Your task to perform on an android device: Open the calendar and show me this week's events? Image 0: 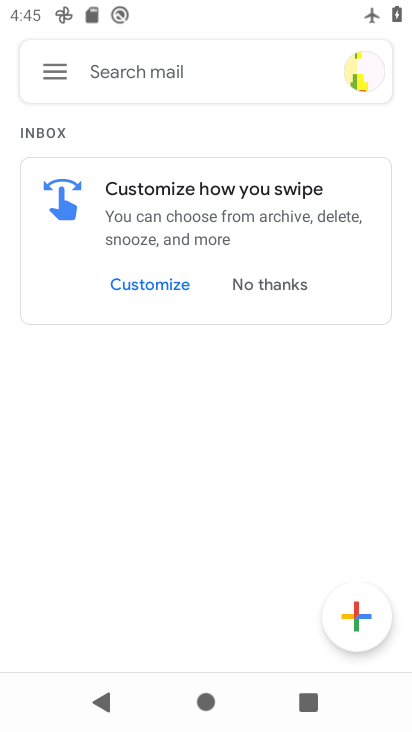
Step 0: press home button
Your task to perform on an android device: Open the calendar and show me this week's events? Image 1: 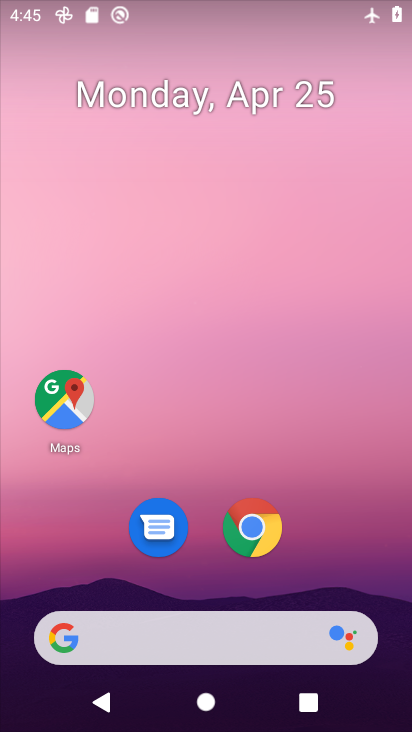
Step 1: drag from (393, 622) to (315, 129)
Your task to perform on an android device: Open the calendar and show me this week's events? Image 2: 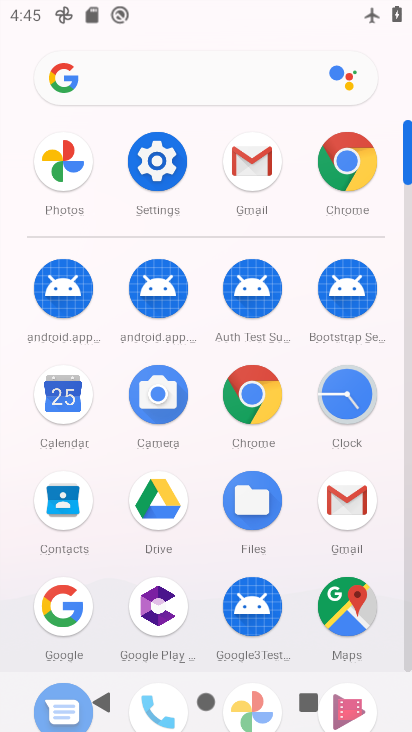
Step 2: click (403, 651)
Your task to perform on an android device: Open the calendar and show me this week's events? Image 3: 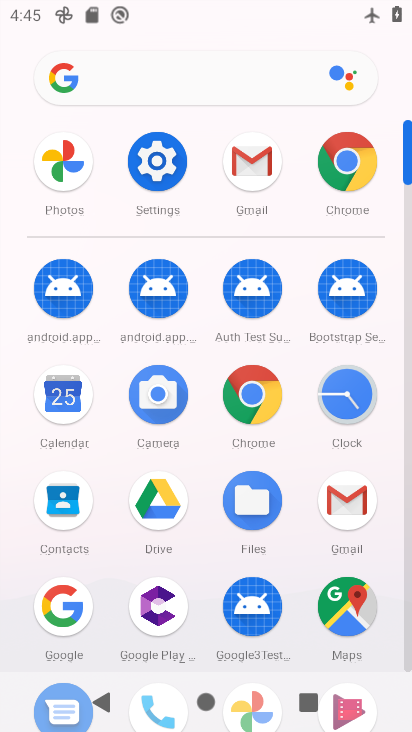
Step 3: click (53, 391)
Your task to perform on an android device: Open the calendar and show me this week's events? Image 4: 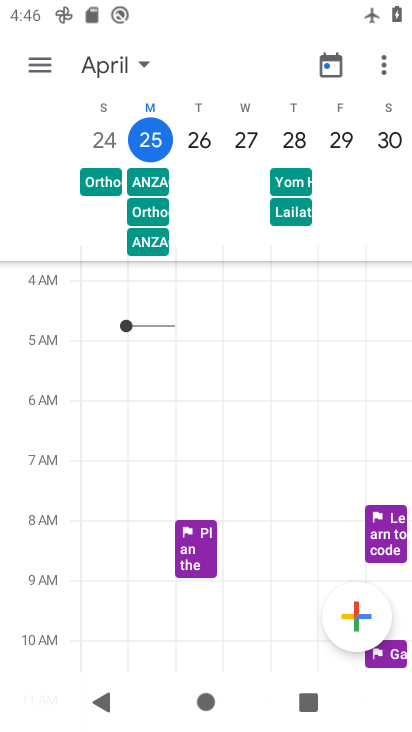
Step 4: click (46, 60)
Your task to perform on an android device: Open the calendar and show me this week's events? Image 5: 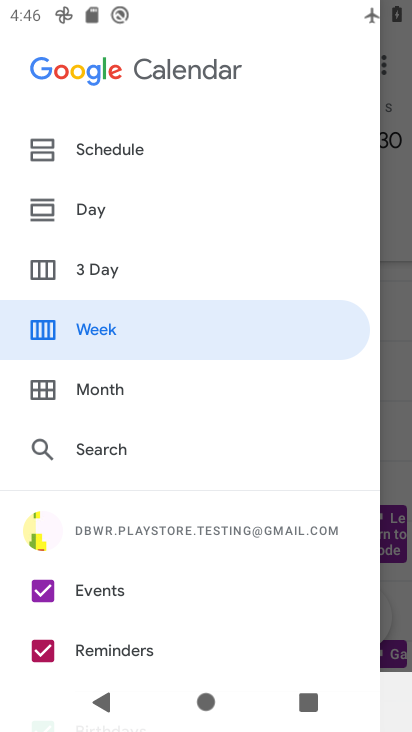
Step 5: click (108, 311)
Your task to perform on an android device: Open the calendar and show me this week's events? Image 6: 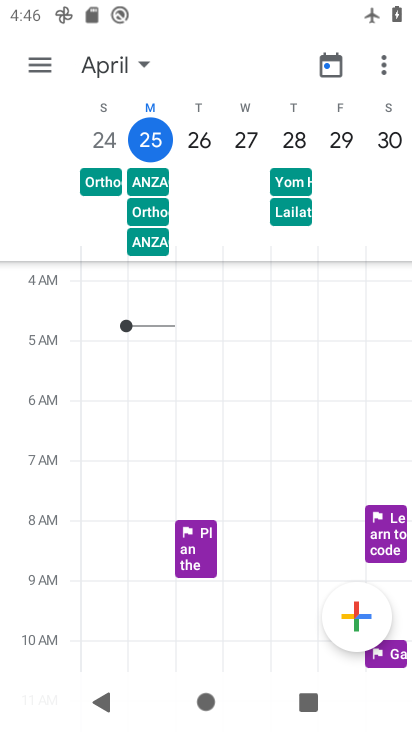
Step 6: task complete